Your task to perform on an android device: Open notification settings Image 0: 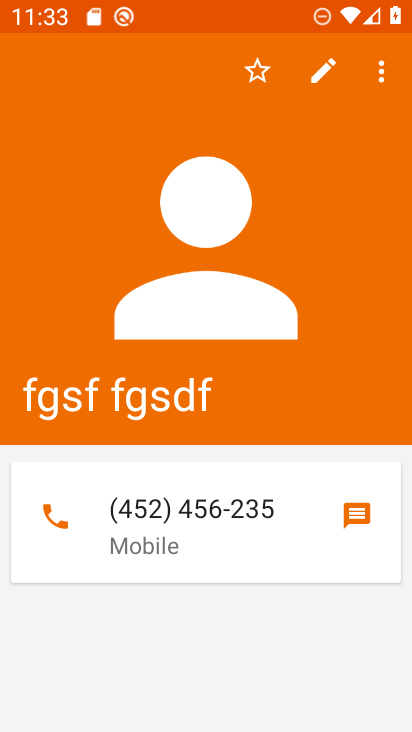
Step 0: press home button
Your task to perform on an android device: Open notification settings Image 1: 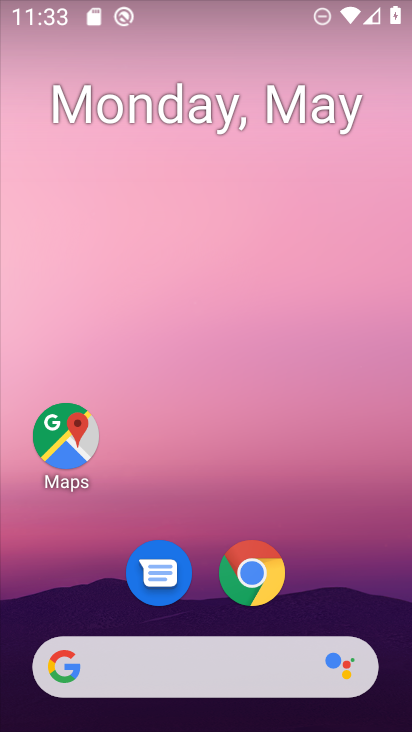
Step 1: drag from (349, 477) to (223, 44)
Your task to perform on an android device: Open notification settings Image 2: 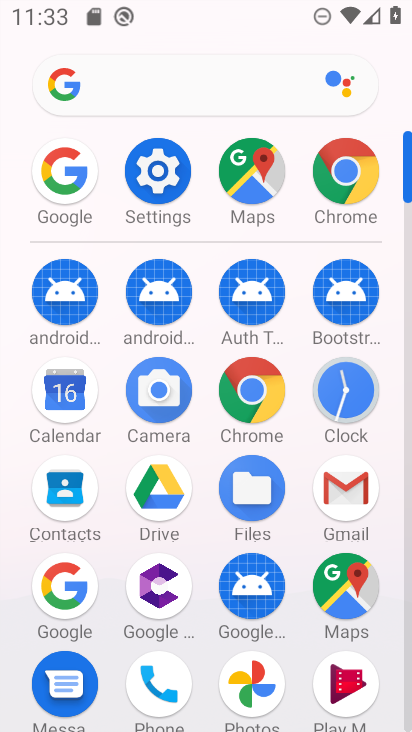
Step 2: click (157, 164)
Your task to perform on an android device: Open notification settings Image 3: 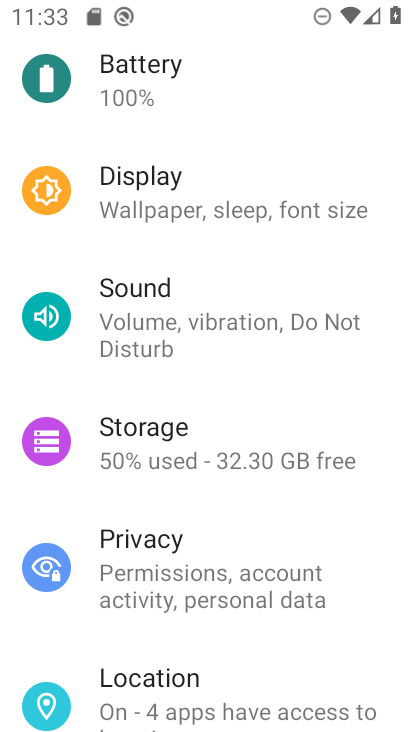
Step 3: drag from (230, 262) to (242, 640)
Your task to perform on an android device: Open notification settings Image 4: 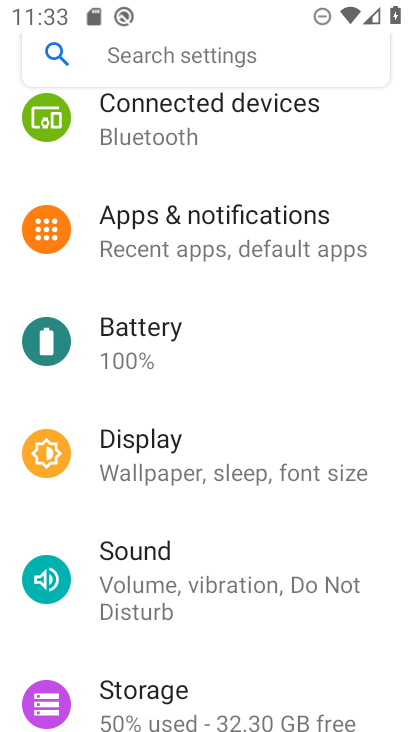
Step 4: click (177, 248)
Your task to perform on an android device: Open notification settings Image 5: 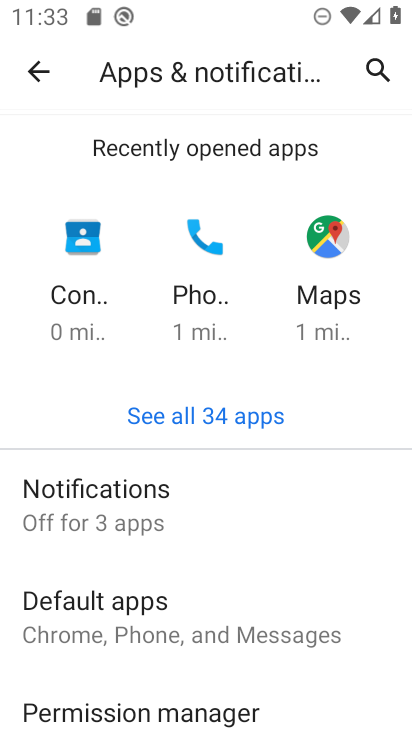
Step 5: task complete